Your task to perform on an android device: change the upload size in google photos Image 0: 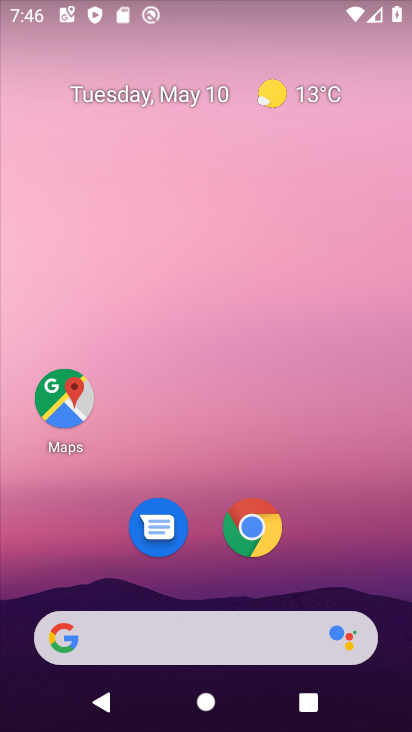
Step 0: drag from (42, 600) to (280, 195)
Your task to perform on an android device: change the upload size in google photos Image 1: 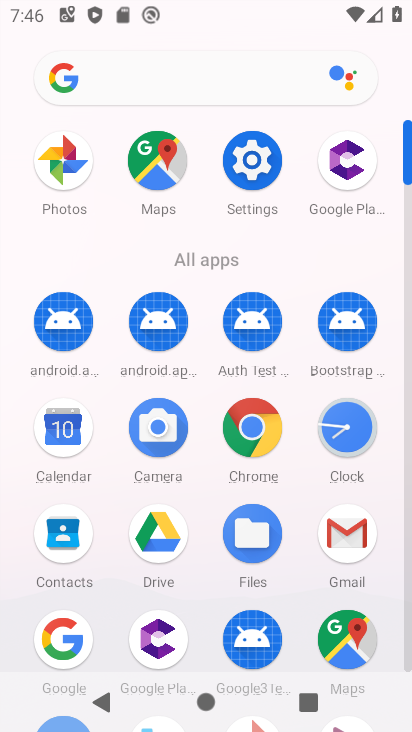
Step 1: drag from (33, 683) to (305, 283)
Your task to perform on an android device: change the upload size in google photos Image 2: 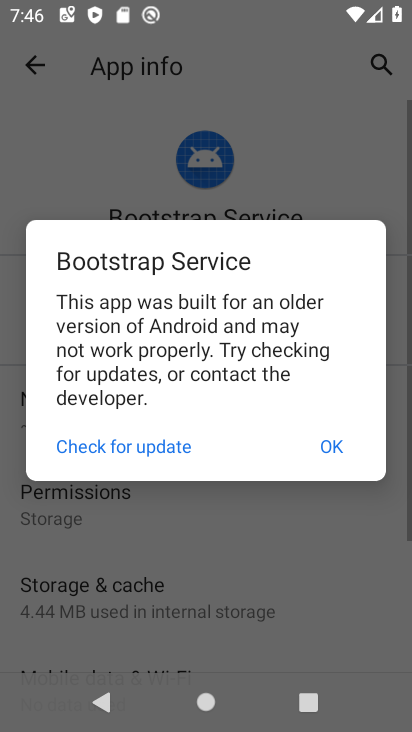
Step 2: click (334, 443)
Your task to perform on an android device: change the upload size in google photos Image 3: 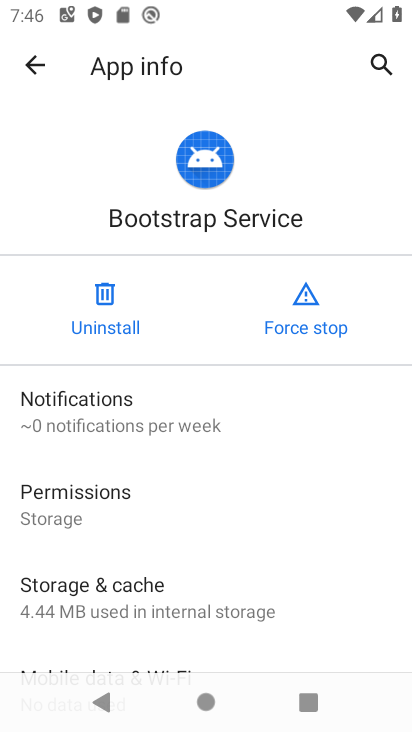
Step 3: press back button
Your task to perform on an android device: change the upload size in google photos Image 4: 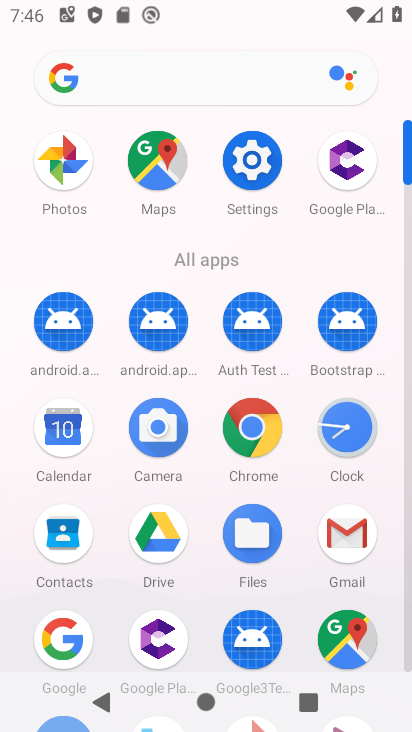
Step 4: drag from (51, 651) to (298, 220)
Your task to perform on an android device: change the upload size in google photos Image 5: 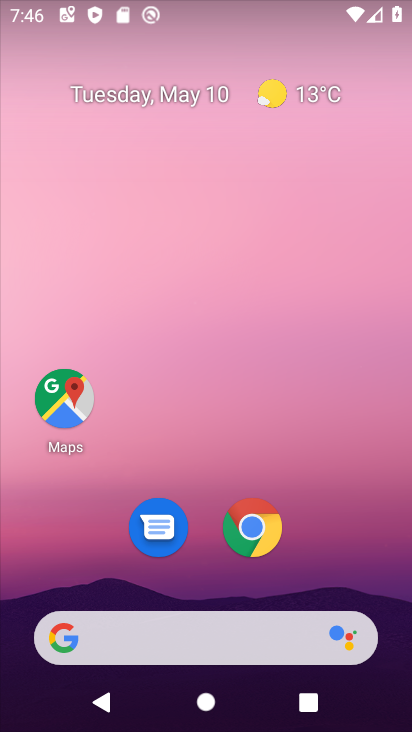
Step 5: drag from (64, 546) to (353, 162)
Your task to perform on an android device: change the upload size in google photos Image 6: 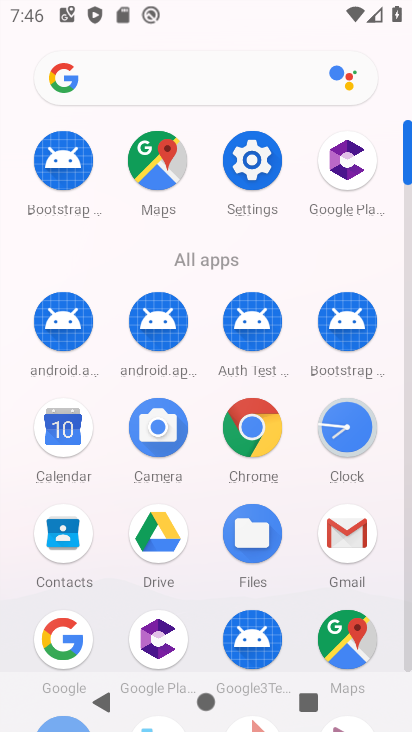
Step 6: drag from (73, 657) to (286, 222)
Your task to perform on an android device: change the upload size in google photos Image 7: 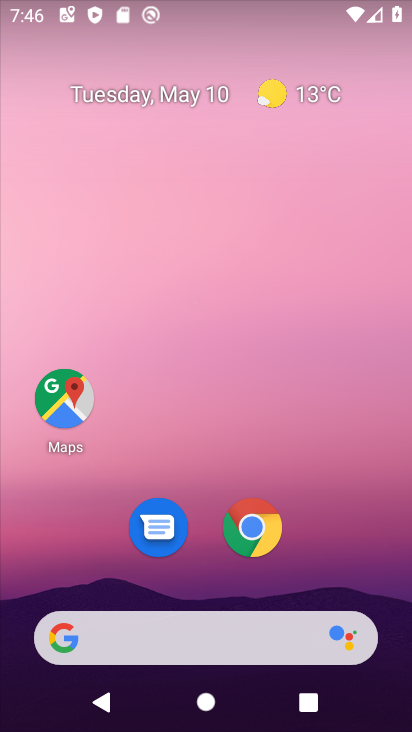
Step 7: drag from (125, 506) to (320, 190)
Your task to perform on an android device: change the upload size in google photos Image 8: 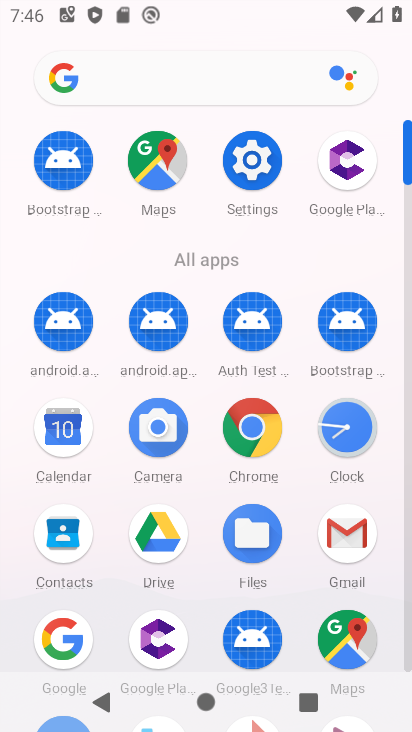
Step 8: drag from (35, 651) to (288, 143)
Your task to perform on an android device: change the upload size in google photos Image 9: 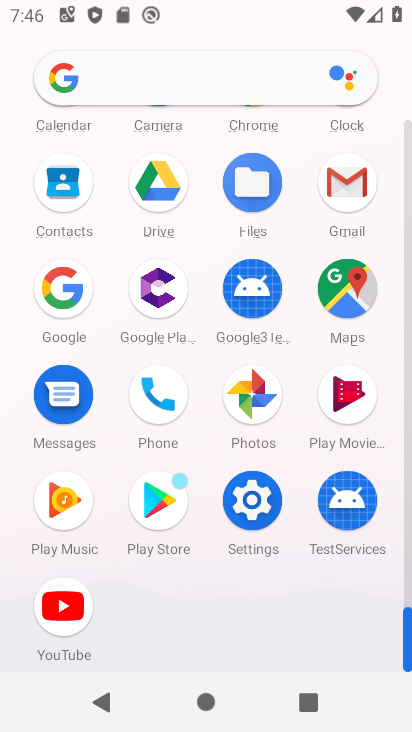
Step 9: click (229, 393)
Your task to perform on an android device: change the upload size in google photos Image 10: 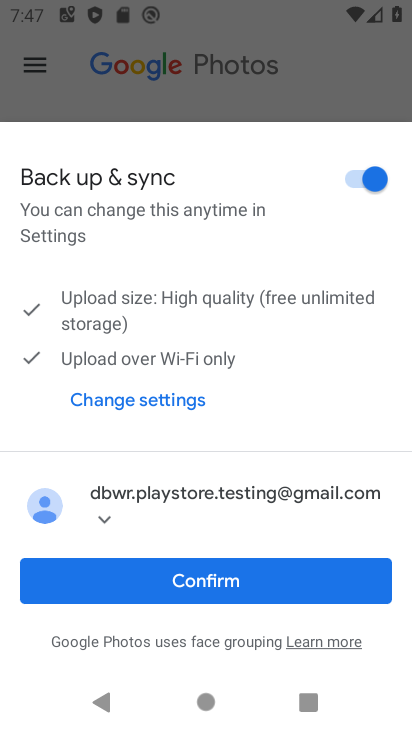
Step 10: click (132, 307)
Your task to perform on an android device: change the upload size in google photos Image 11: 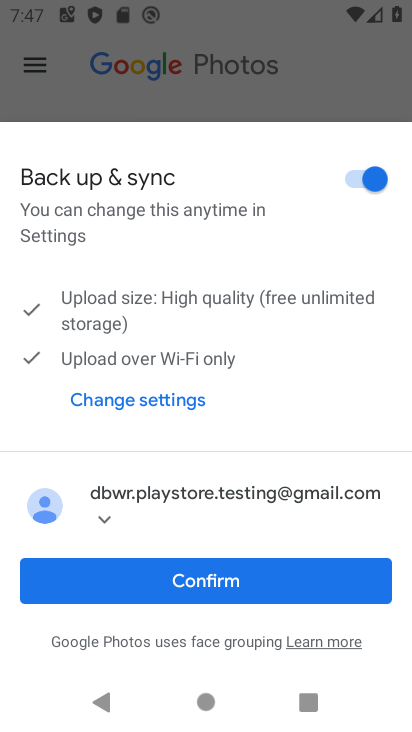
Step 11: click (183, 582)
Your task to perform on an android device: change the upload size in google photos Image 12: 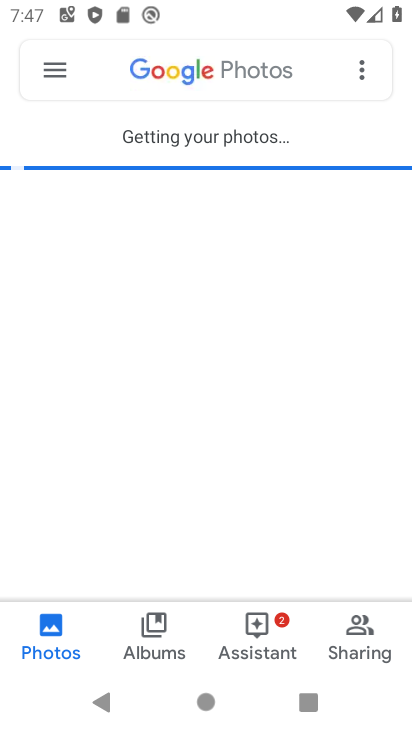
Step 12: click (57, 68)
Your task to perform on an android device: change the upload size in google photos Image 13: 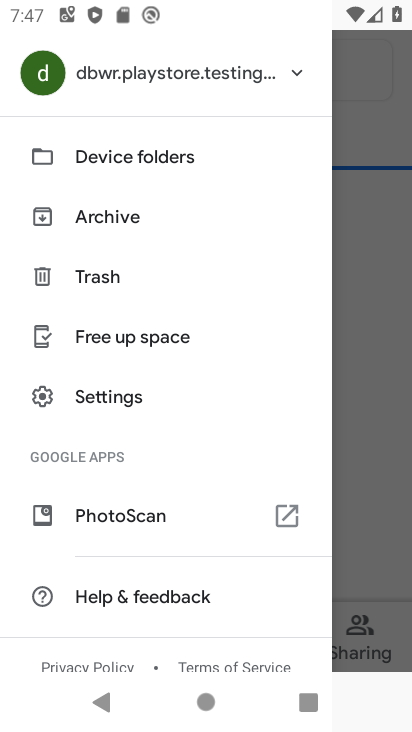
Step 13: drag from (165, 610) to (227, 210)
Your task to perform on an android device: change the upload size in google photos Image 14: 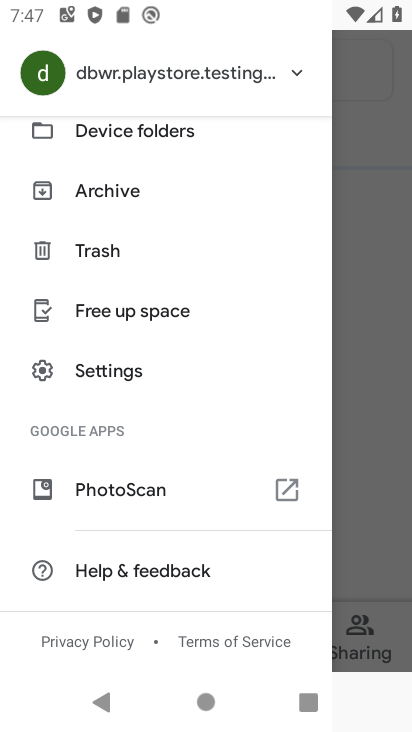
Step 14: click (94, 369)
Your task to perform on an android device: change the upload size in google photos Image 15: 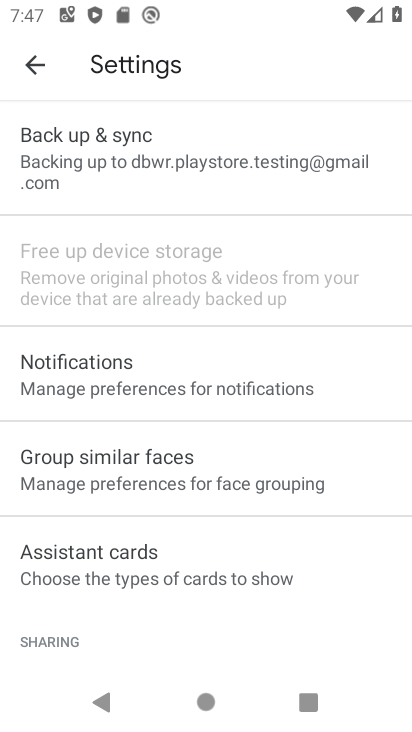
Step 15: click (173, 139)
Your task to perform on an android device: change the upload size in google photos Image 16: 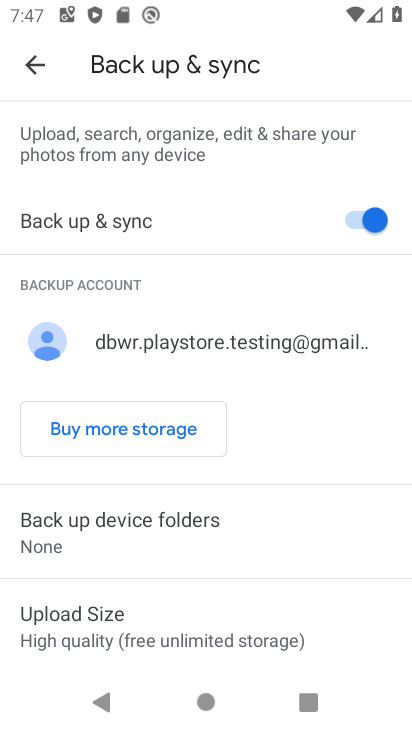
Step 16: click (120, 631)
Your task to perform on an android device: change the upload size in google photos Image 17: 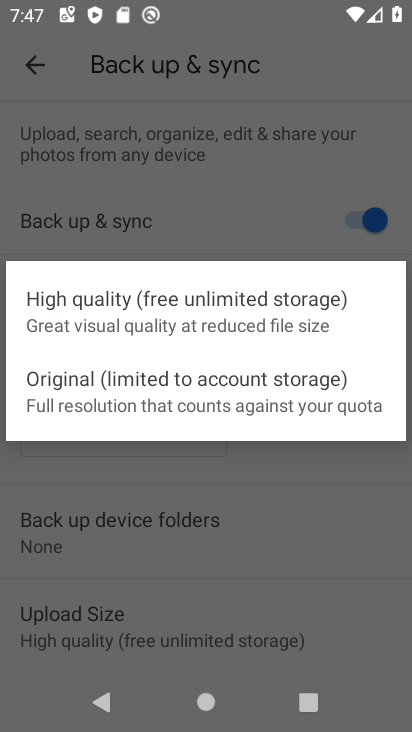
Step 17: click (174, 428)
Your task to perform on an android device: change the upload size in google photos Image 18: 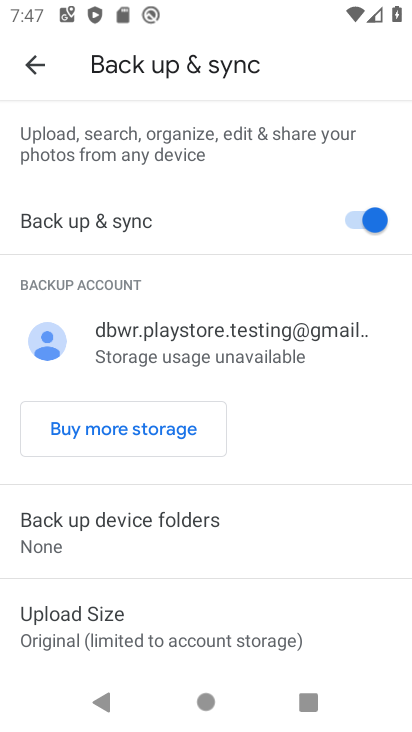
Step 18: task complete